Your task to perform on an android device: change notifications settings Image 0: 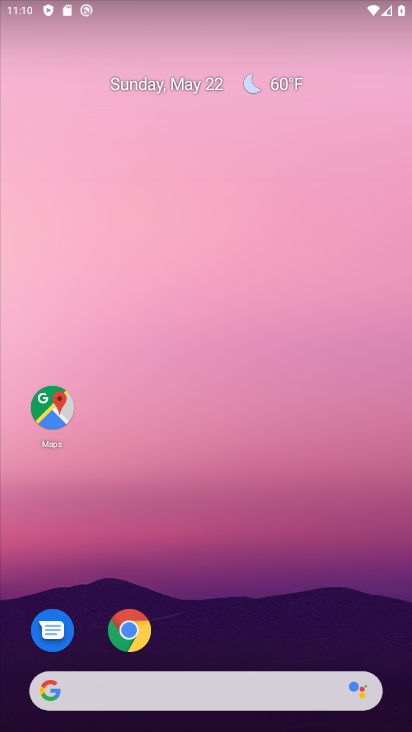
Step 0: drag from (289, 607) to (211, 176)
Your task to perform on an android device: change notifications settings Image 1: 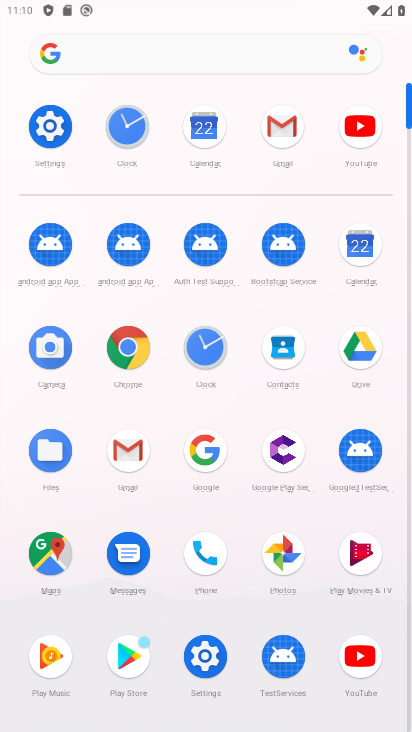
Step 1: click (205, 658)
Your task to perform on an android device: change notifications settings Image 2: 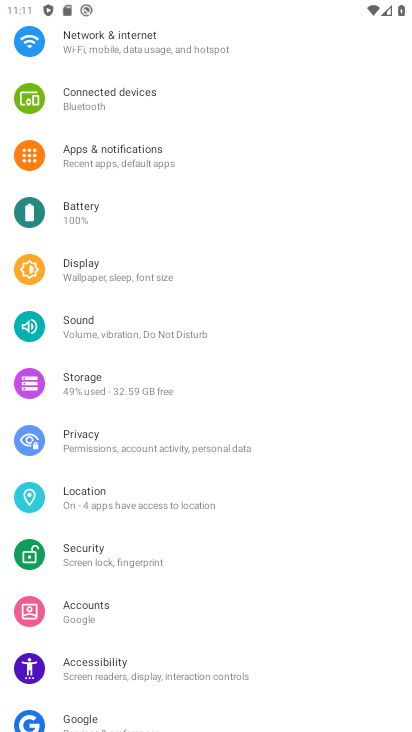
Step 2: drag from (171, 157) to (195, 265)
Your task to perform on an android device: change notifications settings Image 3: 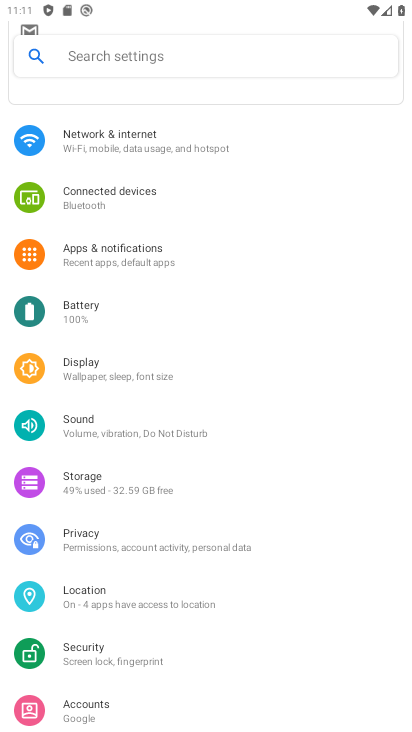
Step 3: click (144, 248)
Your task to perform on an android device: change notifications settings Image 4: 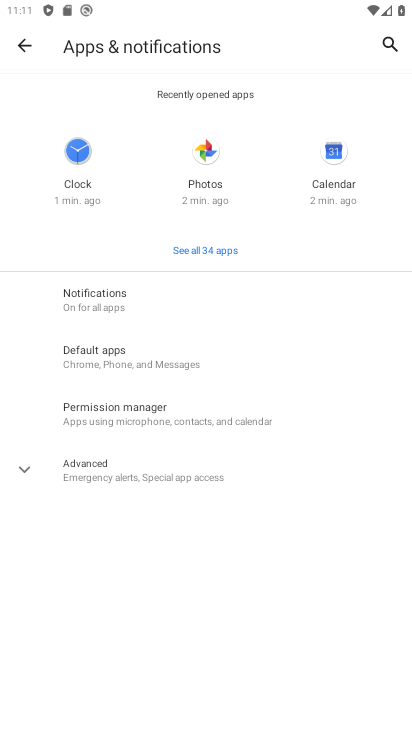
Step 4: click (113, 293)
Your task to perform on an android device: change notifications settings Image 5: 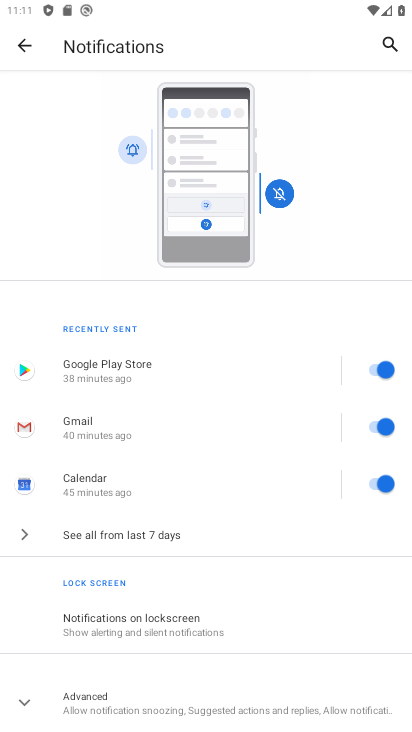
Step 5: drag from (159, 429) to (169, 331)
Your task to perform on an android device: change notifications settings Image 6: 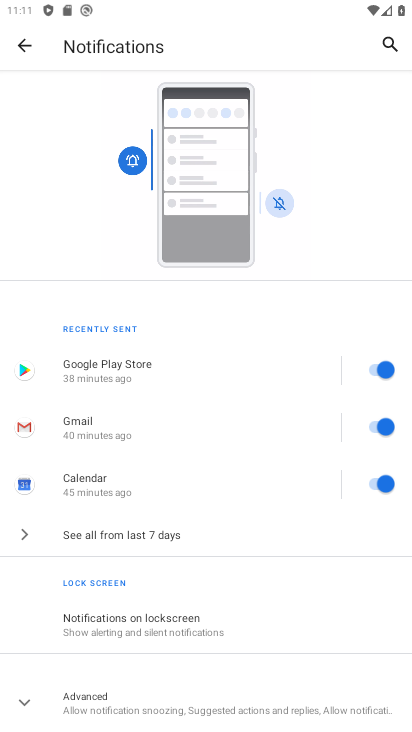
Step 6: drag from (163, 675) to (220, 554)
Your task to perform on an android device: change notifications settings Image 7: 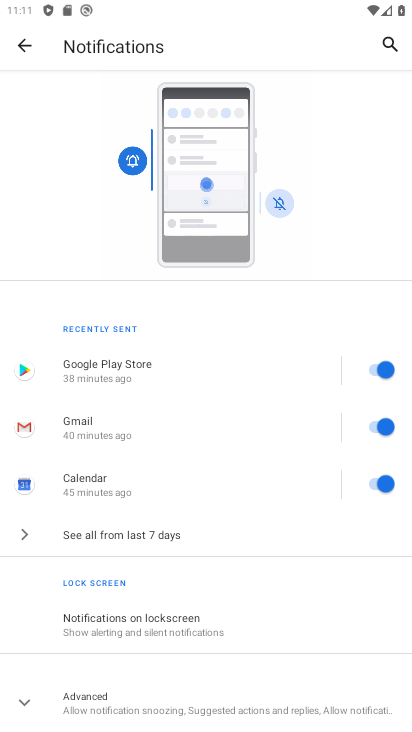
Step 7: click (142, 690)
Your task to perform on an android device: change notifications settings Image 8: 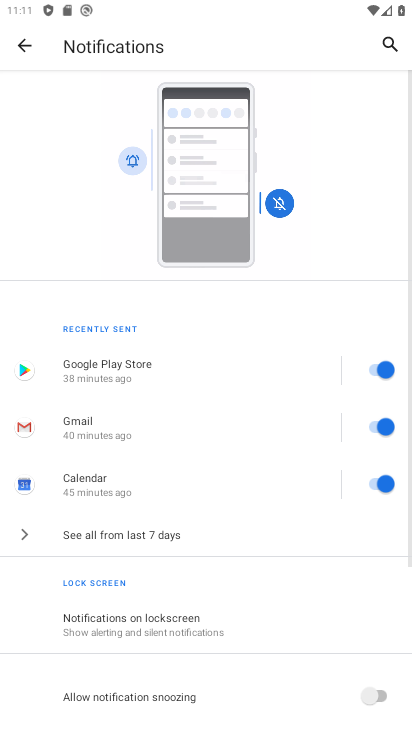
Step 8: drag from (145, 683) to (232, 552)
Your task to perform on an android device: change notifications settings Image 9: 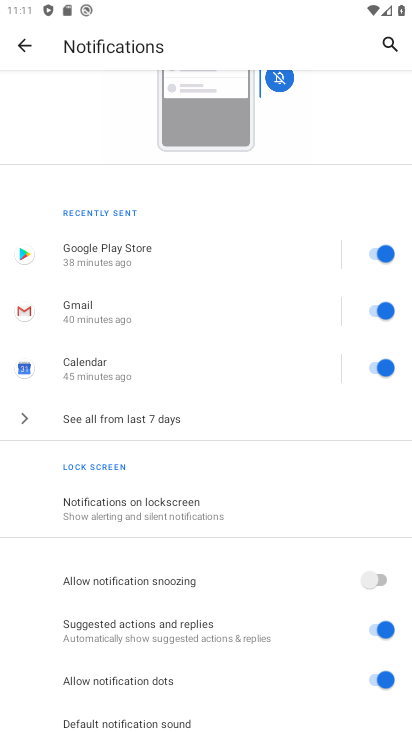
Step 9: drag from (247, 630) to (290, 552)
Your task to perform on an android device: change notifications settings Image 10: 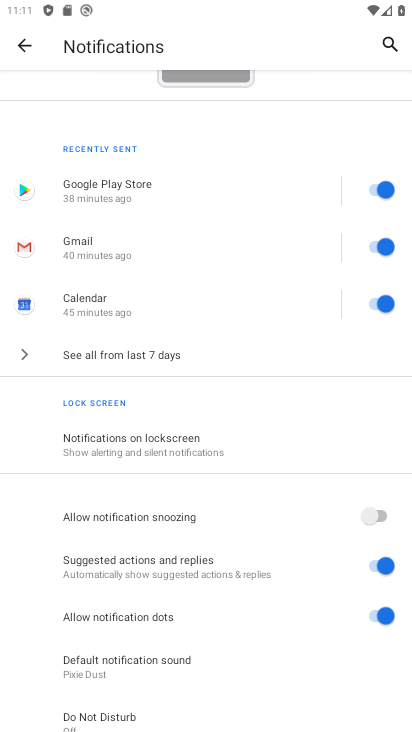
Step 10: click (377, 611)
Your task to perform on an android device: change notifications settings Image 11: 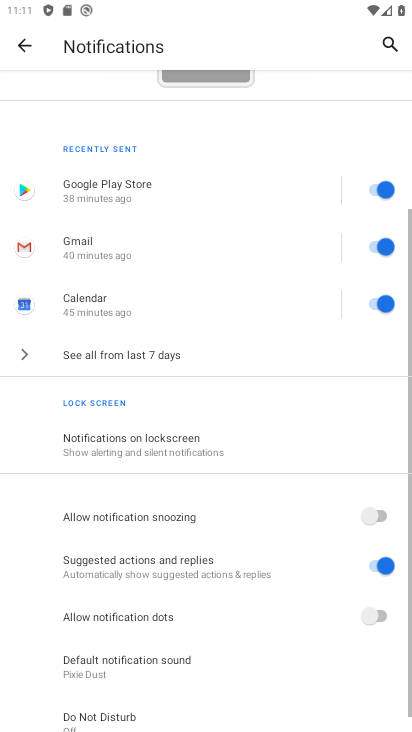
Step 11: task complete